Your task to perform on an android device: Go to internet settings Image 0: 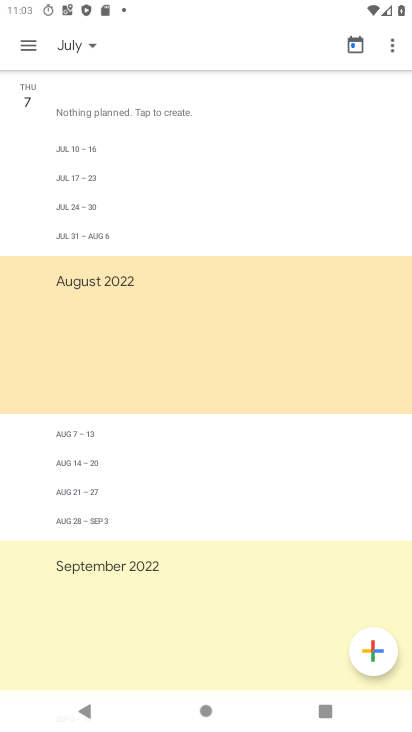
Step 0: press home button
Your task to perform on an android device: Go to internet settings Image 1: 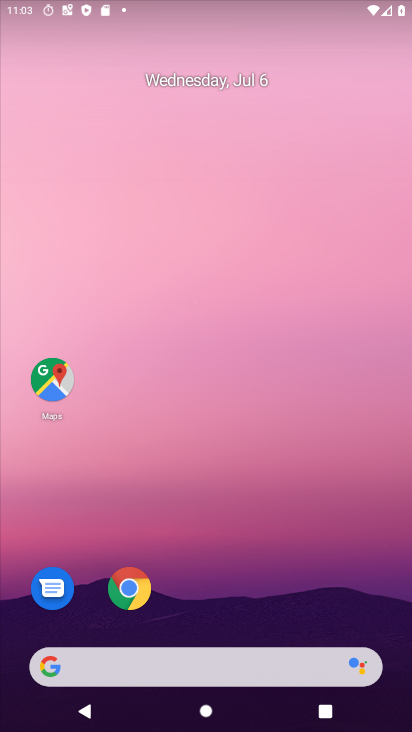
Step 1: drag from (251, 730) to (250, 89)
Your task to perform on an android device: Go to internet settings Image 2: 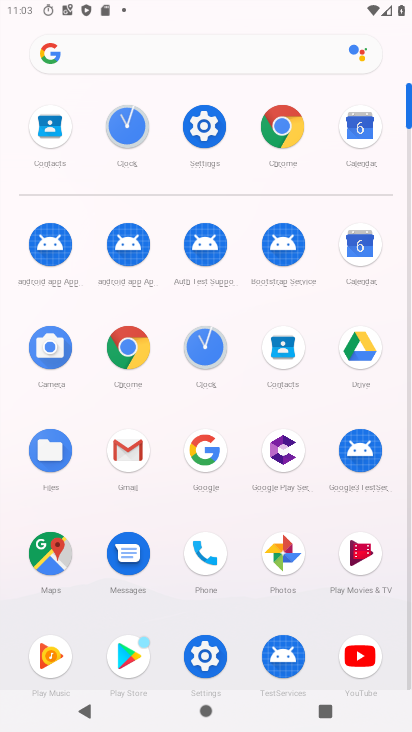
Step 2: click (214, 130)
Your task to perform on an android device: Go to internet settings Image 3: 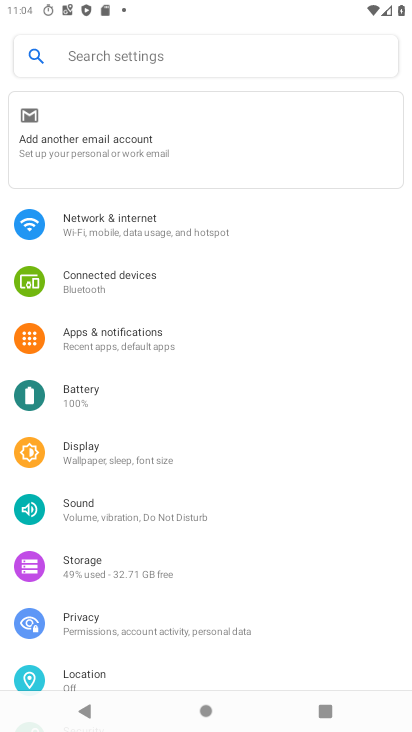
Step 3: click (68, 220)
Your task to perform on an android device: Go to internet settings Image 4: 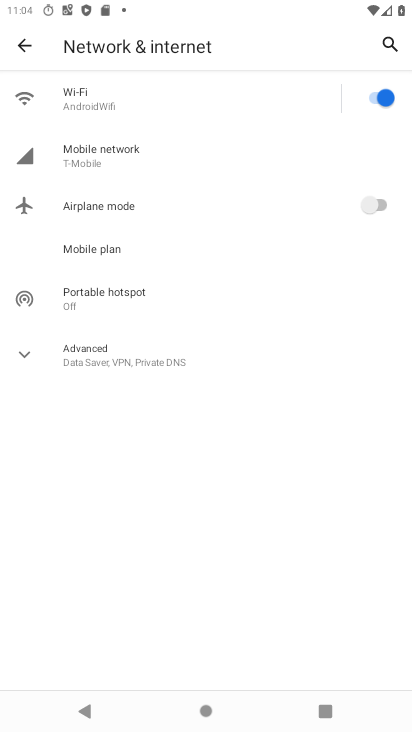
Step 4: task complete